Your task to perform on an android device: see creations saved in the google photos Image 0: 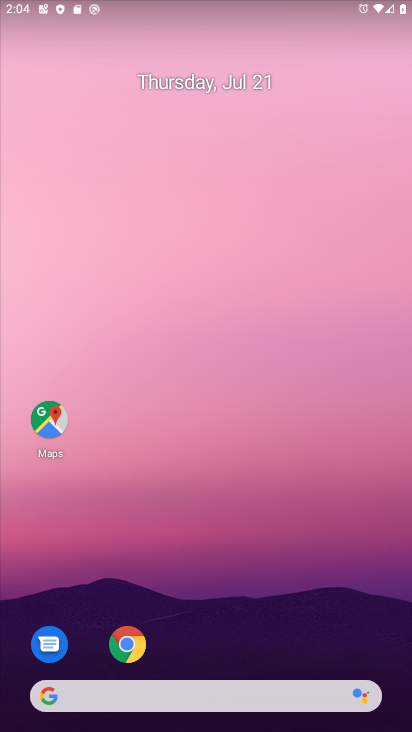
Step 0: drag from (250, 600) to (287, 165)
Your task to perform on an android device: see creations saved in the google photos Image 1: 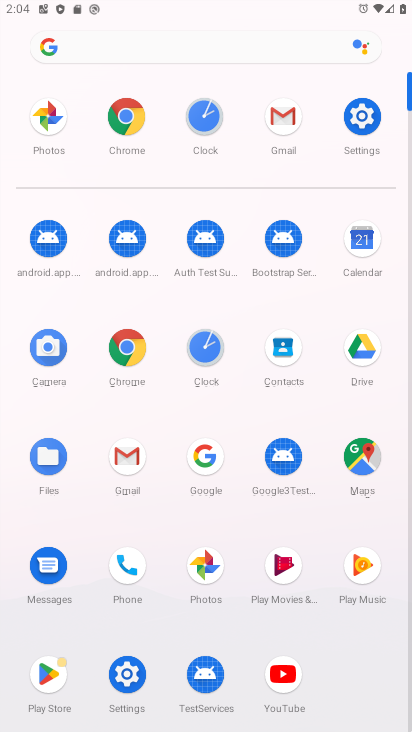
Step 1: click (204, 568)
Your task to perform on an android device: see creations saved in the google photos Image 2: 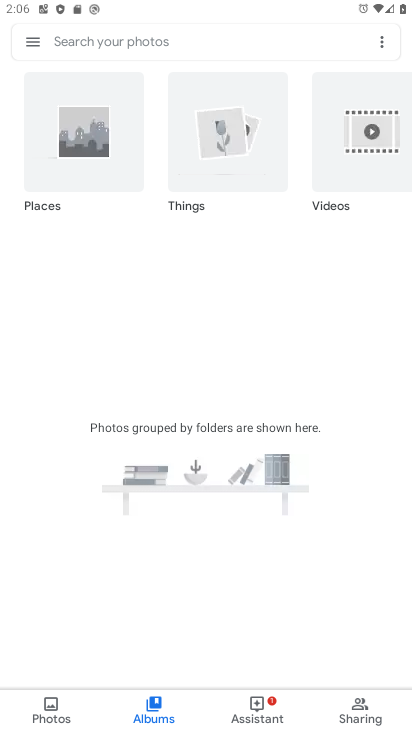
Step 2: task complete